Your task to perform on an android device: Go to calendar. Show me events next week Image 0: 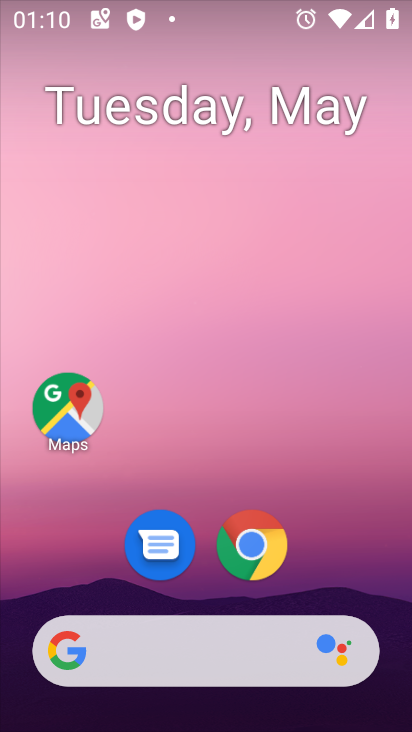
Step 0: drag from (351, 582) to (349, 50)
Your task to perform on an android device: Go to calendar. Show me events next week Image 1: 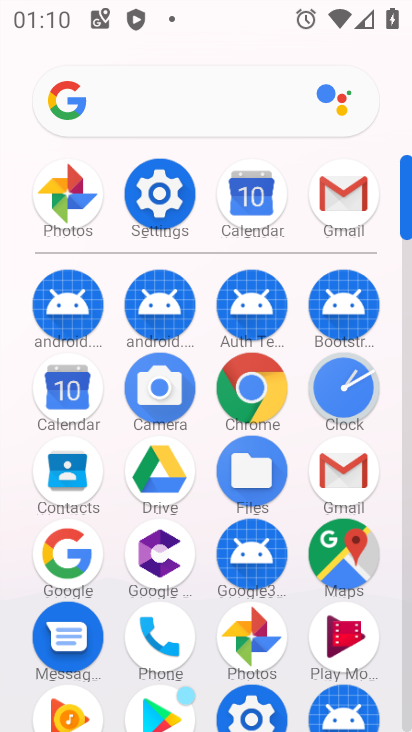
Step 1: click (80, 395)
Your task to perform on an android device: Go to calendar. Show me events next week Image 2: 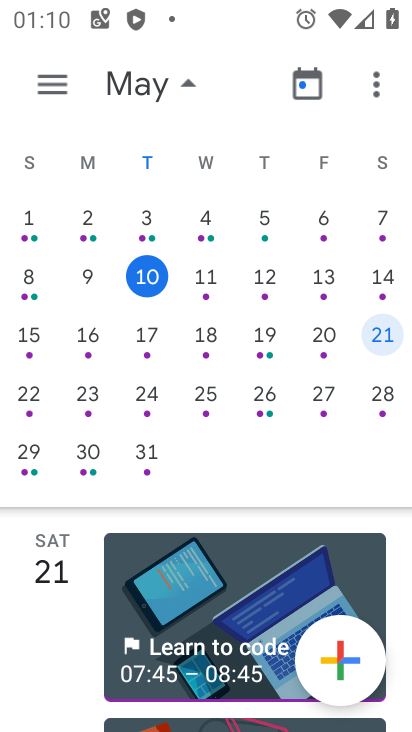
Step 2: click (41, 351)
Your task to perform on an android device: Go to calendar. Show me events next week Image 3: 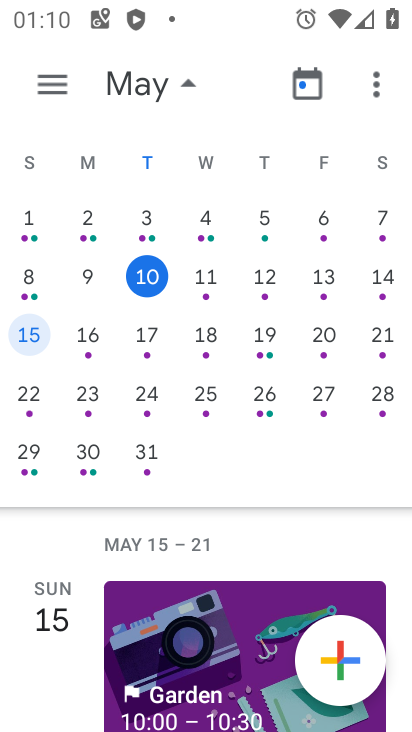
Step 3: click (92, 339)
Your task to perform on an android device: Go to calendar. Show me events next week Image 4: 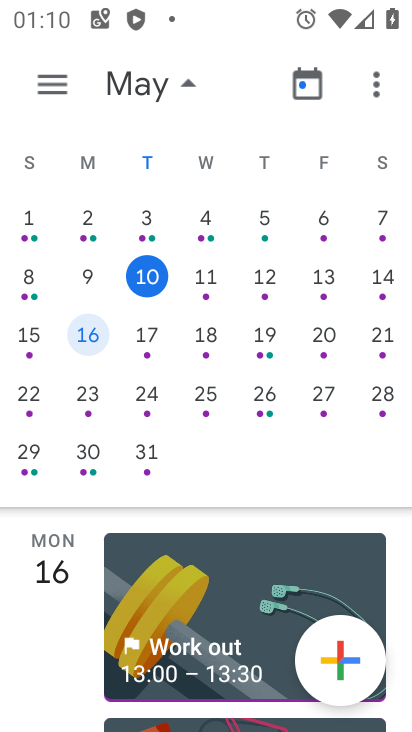
Step 4: click (141, 340)
Your task to perform on an android device: Go to calendar. Show me events next week Image 5: 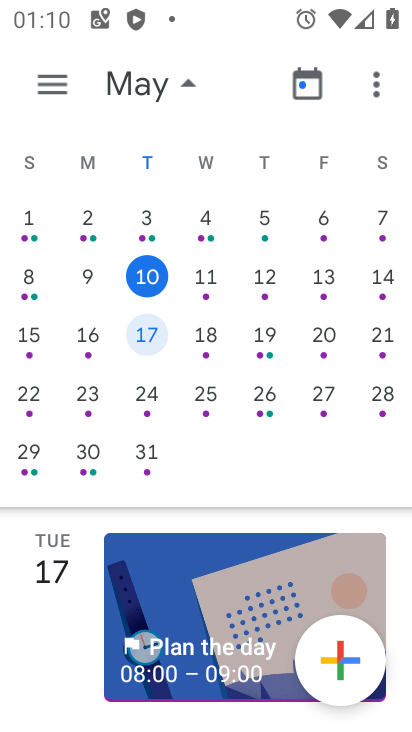
Step 5: click (219, 351)
Your task to perform on an android device: Go to calendar. Show me events next week Image 6: 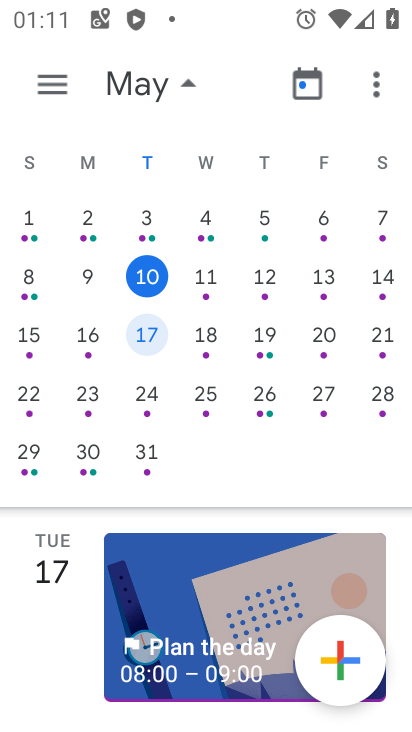
Step 6: click (220, 345)
Your task to perform on an android device: Go to calendar. Show me events next week Image 7: 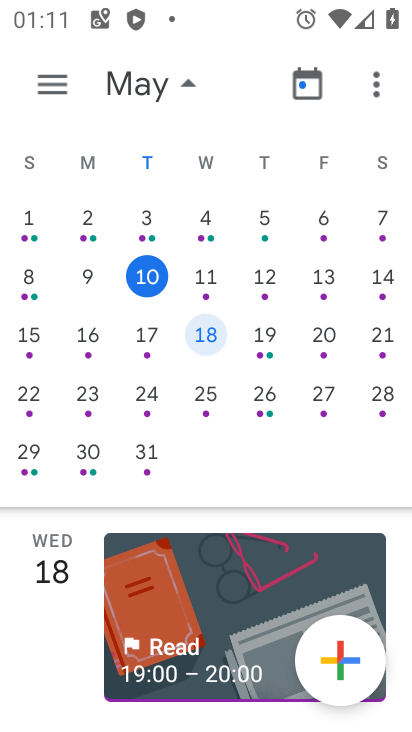
Step 7: click (259, 350)
Your task to perform on an android device: Go to calendar. Show me events next week Image 8: 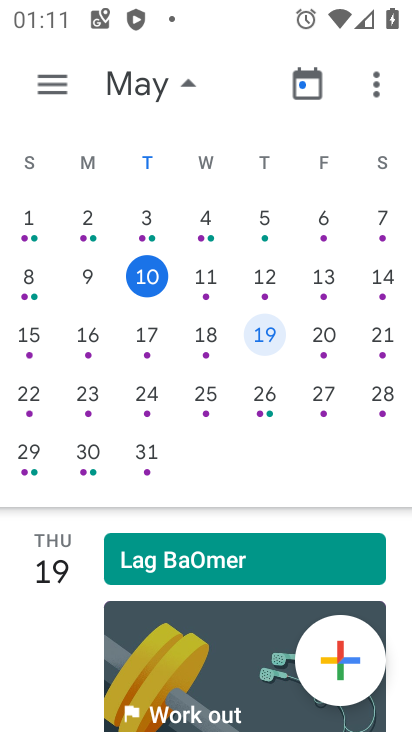
Step 8: click (334, 349)
Your task to perform on an android device: Go to calendar. Show me events next week Image 9: 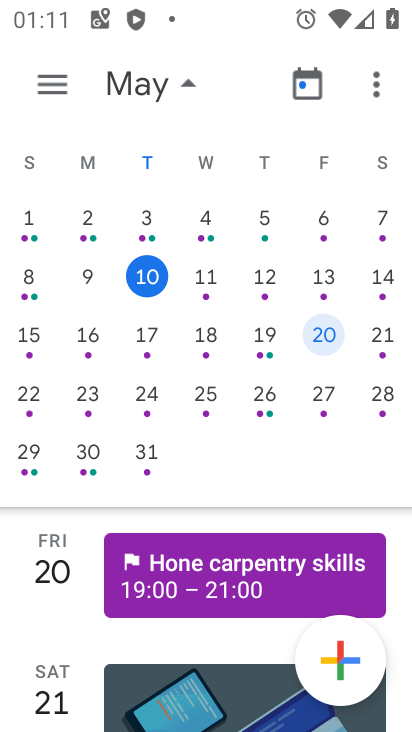
Step 9: click (378, 345)
Your task to perform on an android device: Go to calendar. Show me events next week Image 10: 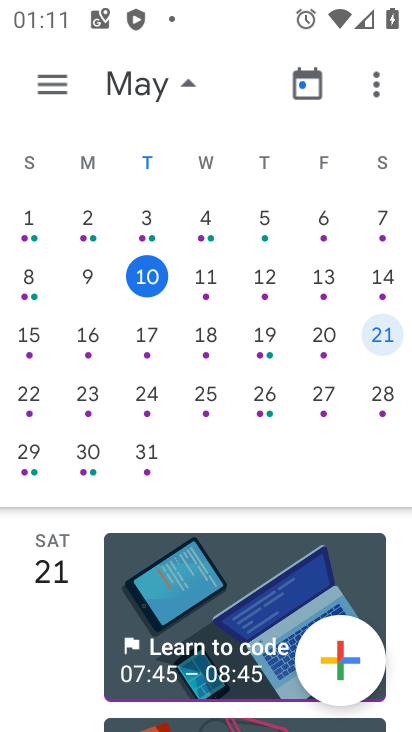
Step 10: task complete